Your task to perform on an android device: Open Maps and search for coffee Image 0: 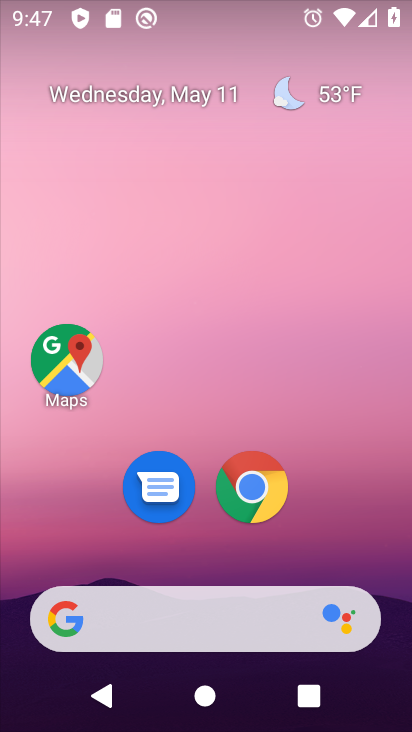
Step 0: click (63, 365)
Your task to perform on an android device: Open Maps and search for coffee Image 1: 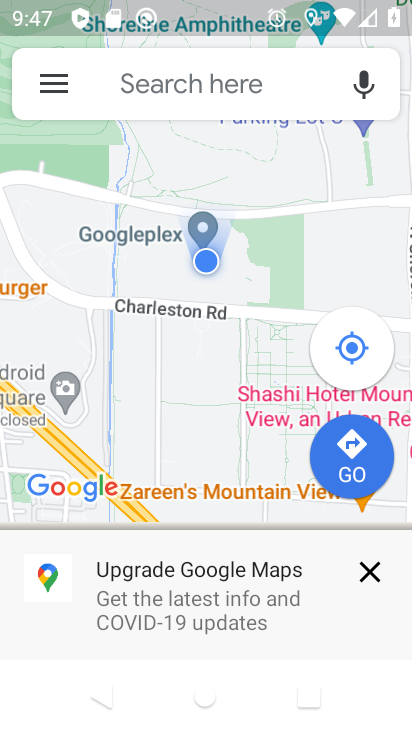
Step 1: click (182, 89)
Your task to perform on an android device: Open Maps and search for coffee Image 2: 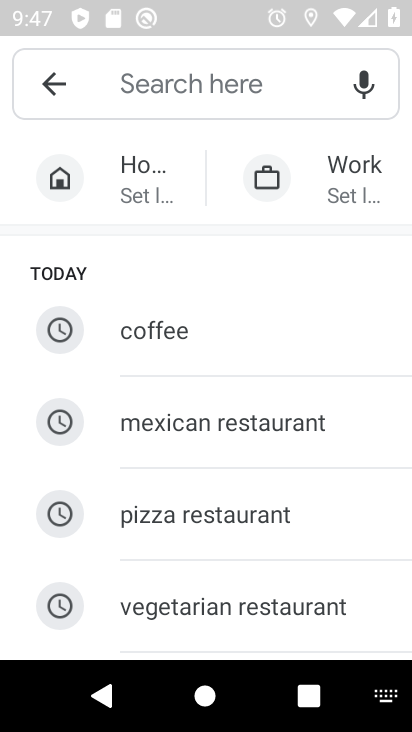
Step 2: click (155, 331)
Your task to perform on an android device: Open Maps and search for coffee Image 3: 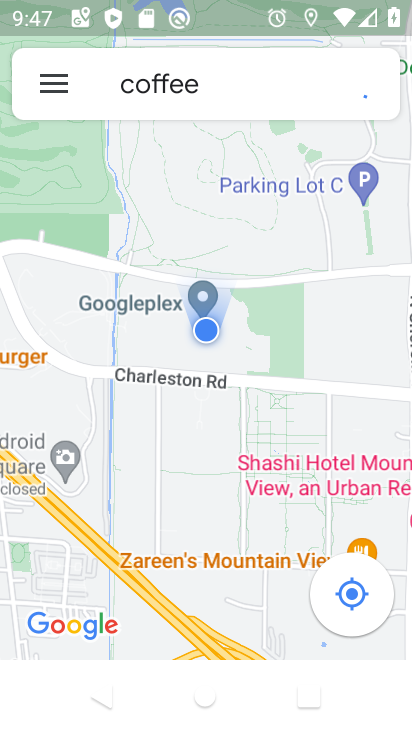
Step 3: task complete